Your task to perform on an android device: Go to Maps Image 0: 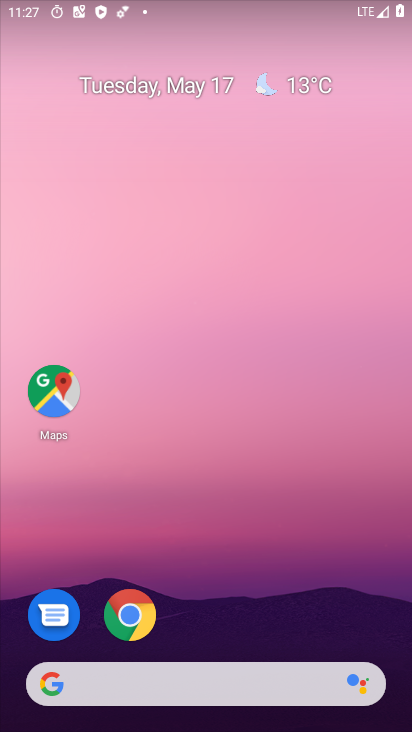
Step 0: press home button
Your task to perform on an android device: Go to Maps Image 1: 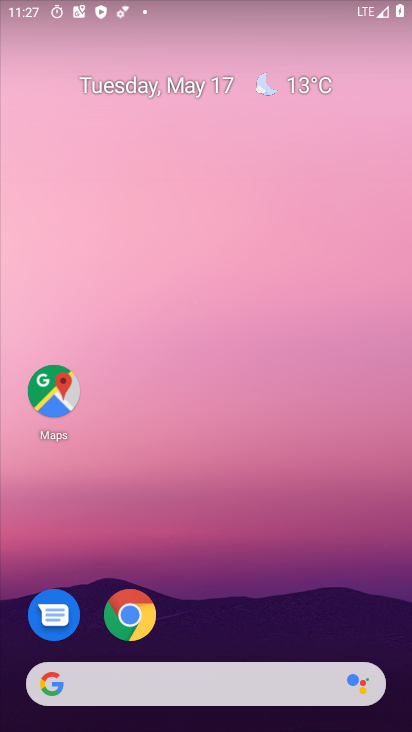
Step 1: click (62, 406)
Your task to perform on an android device: Go to Maps Image 2: 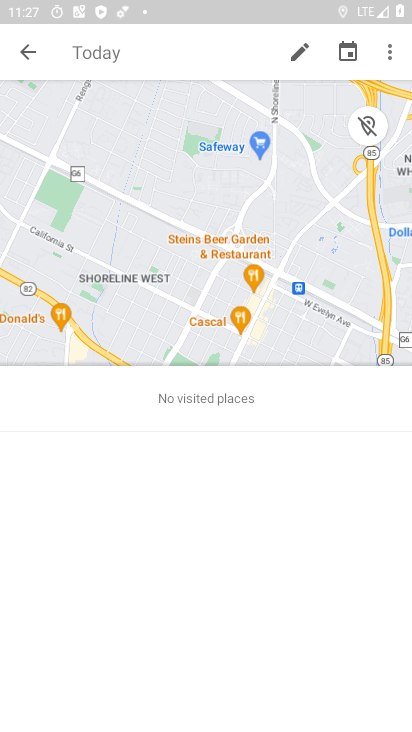
Step 2: click (29, 52)
Your task to perform on an android device: Go to Maps Image 3: 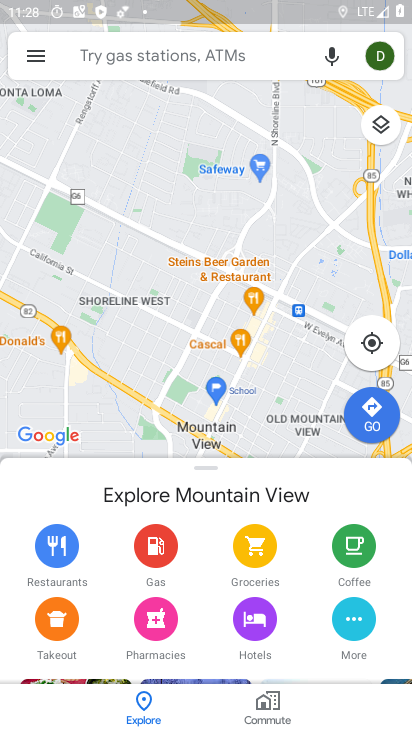
Step 3: task complete